Your task to perform on an android device: Open Reddit.com Image 0: 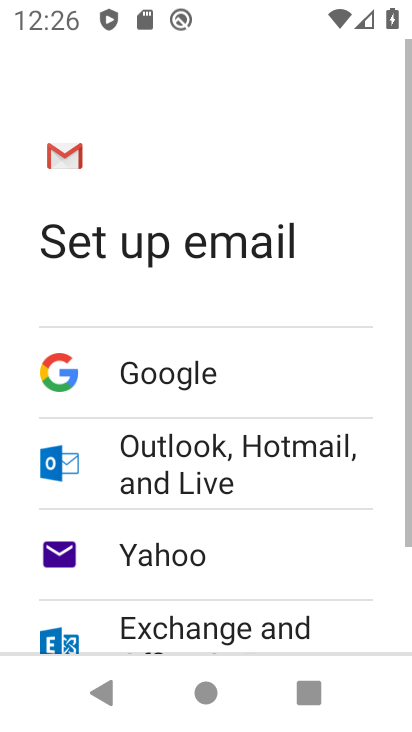
Step 0: press home button
Your task to perform on an android device: Open Reddit.com Image 1: 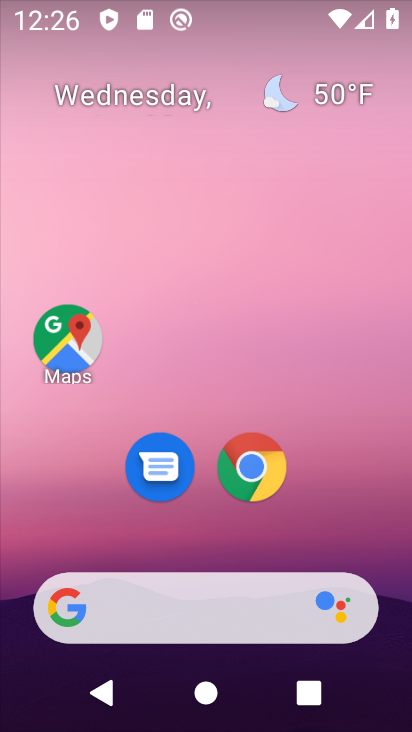
Step 1: click (138, 605)
Your task to perform on an android device: Open Reddit.com Image 2: 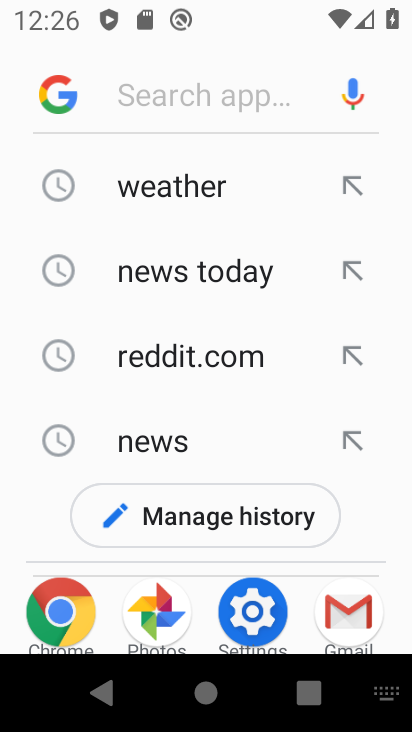
Step 2: type "Reddit.com"
Your task to perform on an android device: Open Reddit.com Image 3: 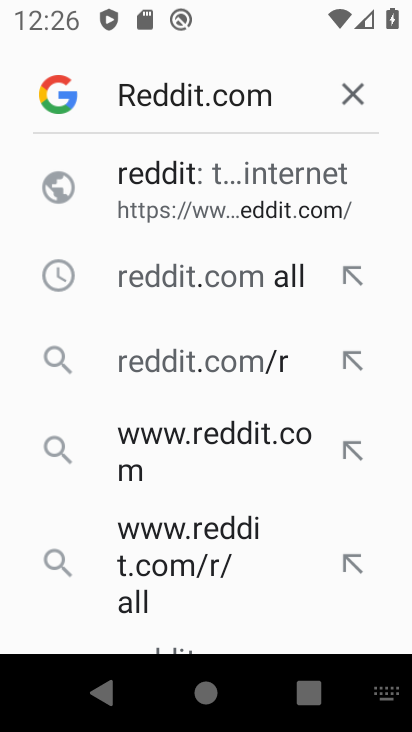
Step 3: click (268, 185)
Your task to perform on an android device: Open Reddit.com Image 4: 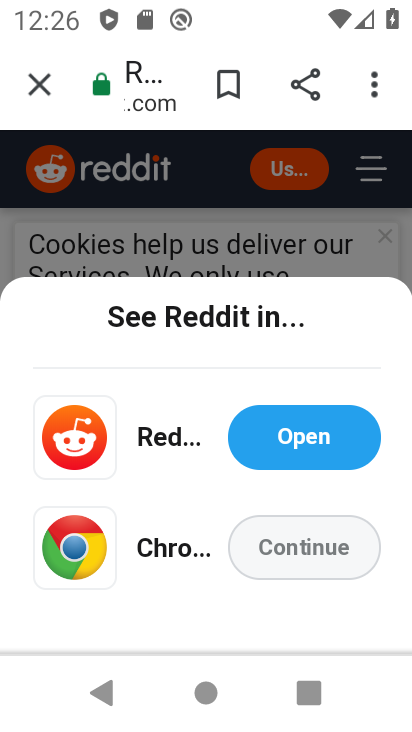
Step 4: click (306, 544)
Your task to perform on an android device: Open Reddit.com Image 5: 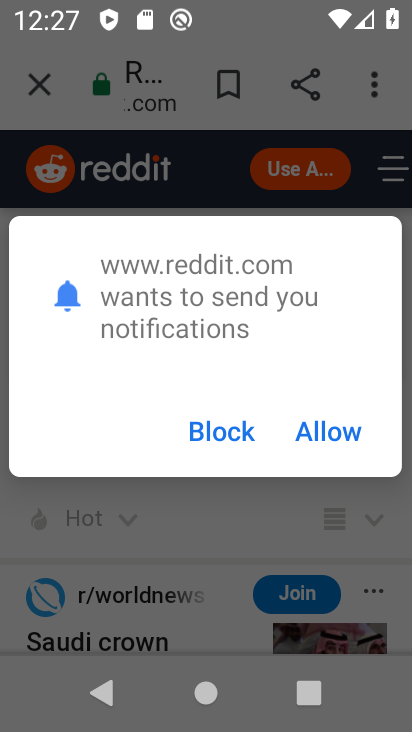
Step 5: click (331, 442)
Your task to perform on an android device: Open Reddit.com Image 6: 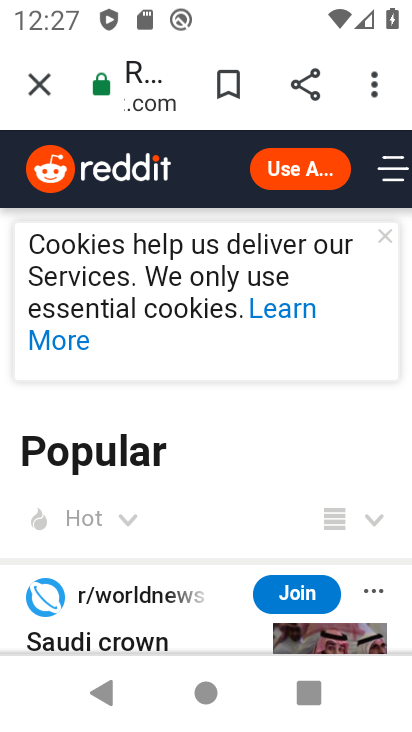
Step 6: task complete